Your task to perform on an android device: Search for sushi restaurants on Maps Image 0: 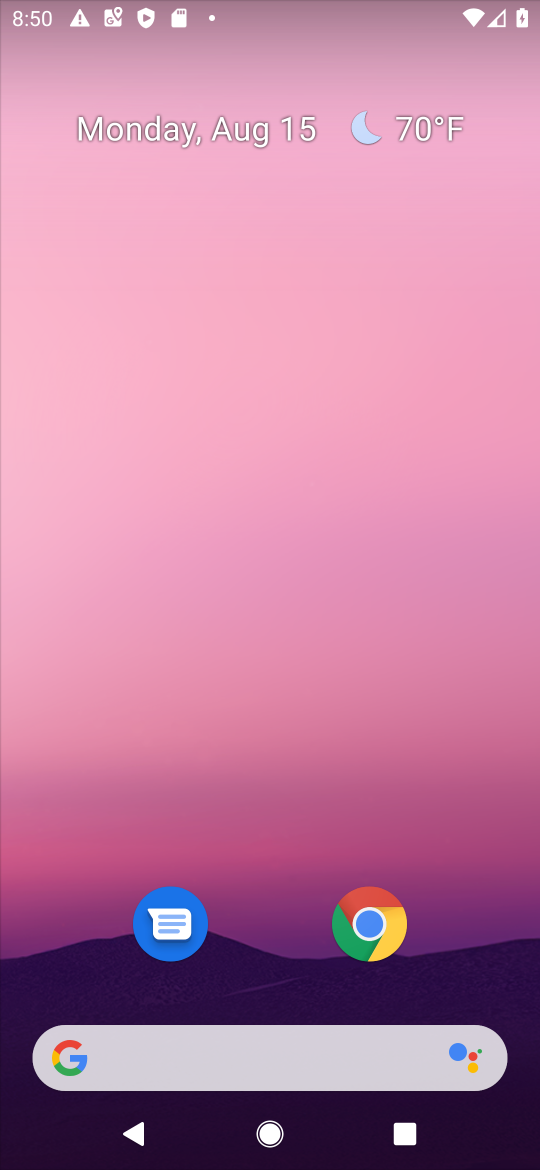
Step 0: drag from (489, 986) to (429, 97)
Your task to perform on an android device: Search for sushi restaurants on Maps Image 1: 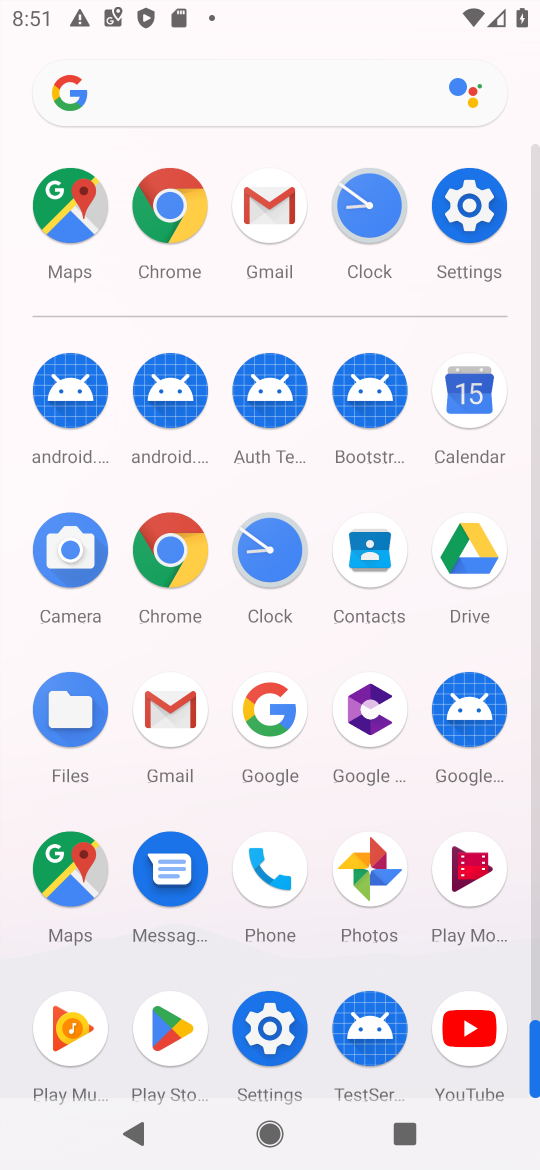
Step 1: click (71, 873)
Your task to perform on an android device: Search for sushi restaurants on Maps Image 2: 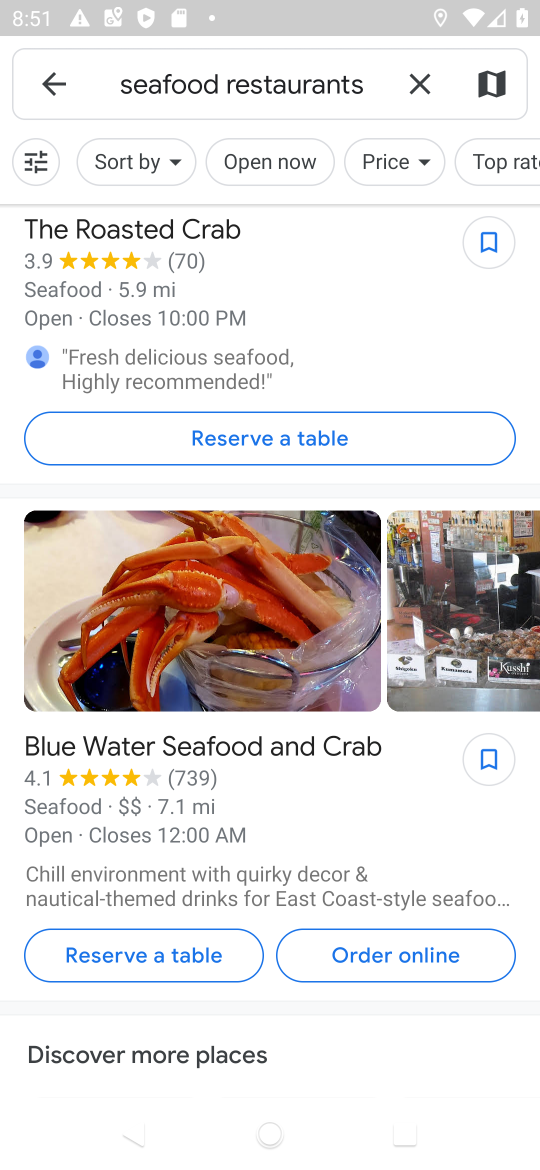
Step 2: click (418, 80)
Your task to perform on an android device: Search for sushi restaurants on Maps Image 3: 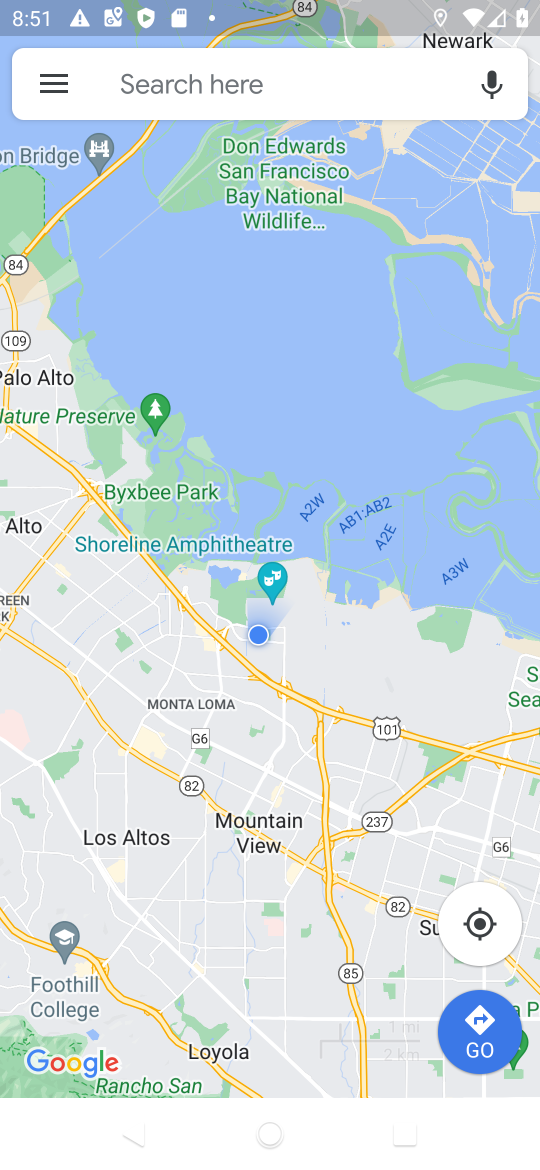
Step 3: click (157, 80)
Your task to perform on an android device: Search for sushi restaurants on Maps Image 4: 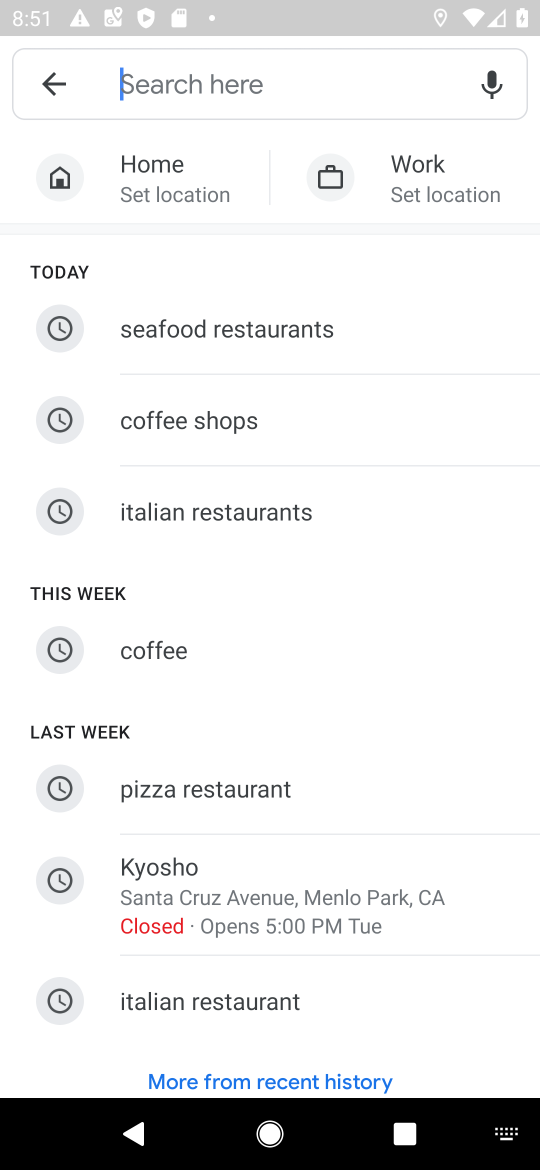
Step 4: type "sushi restaurants"
Your task to perform on an android device: Search for sushi restaurants on Maps Image 5: 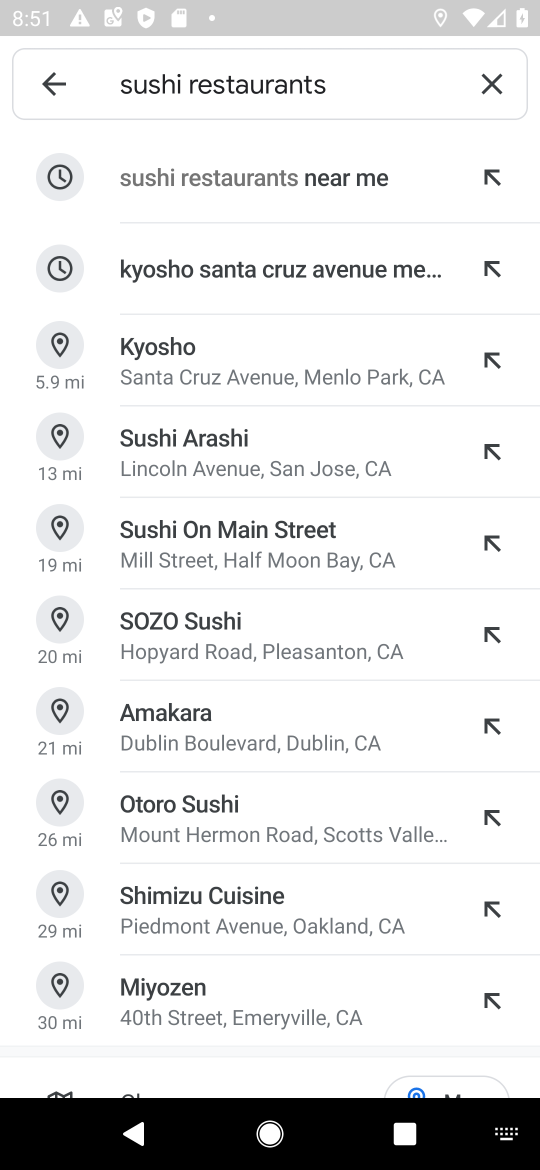
Step 5: click (198, 182)
Your task to perform on an android device: Search for sushi restaurants on Maps Image 6: 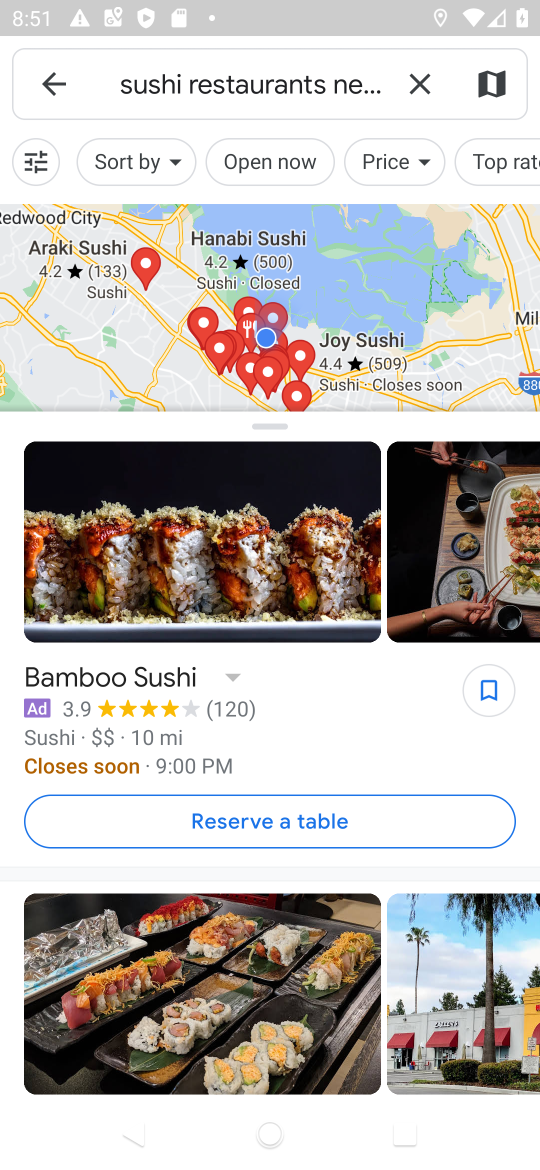
Step 6: task complete